Your task to perform on an android device: Go to CNN.com Image 0: 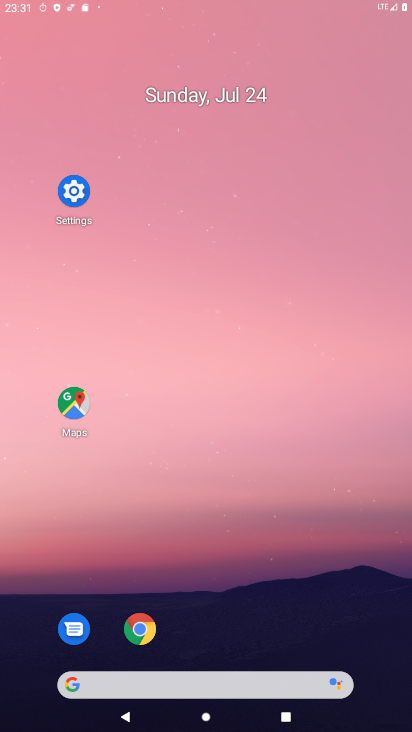
Step 0: drag from (222, 8) to (161, 72)
Your task to perform on an android device: Go to CNN.com Image 1: 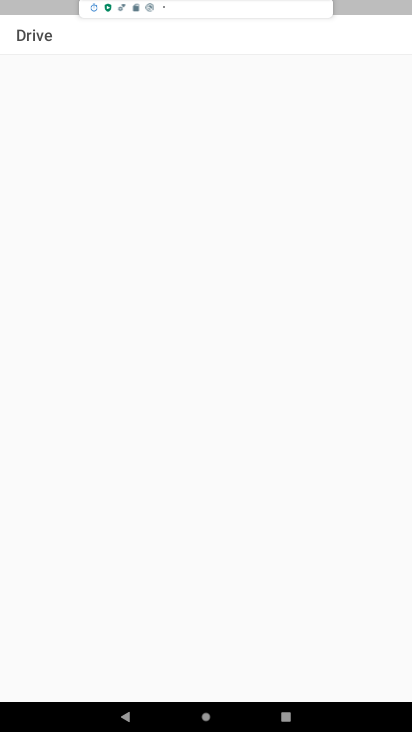
Step 1: drag from (143, 595) to (174, 256)
Your task to perform on an android device: Go to CNN.com Image 2: 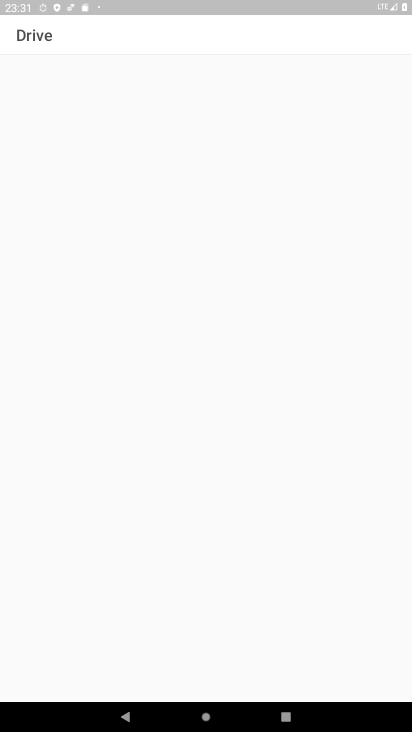
Step 2: press back button
Your task to perform on an android device: Go to CNN.com Image 3: 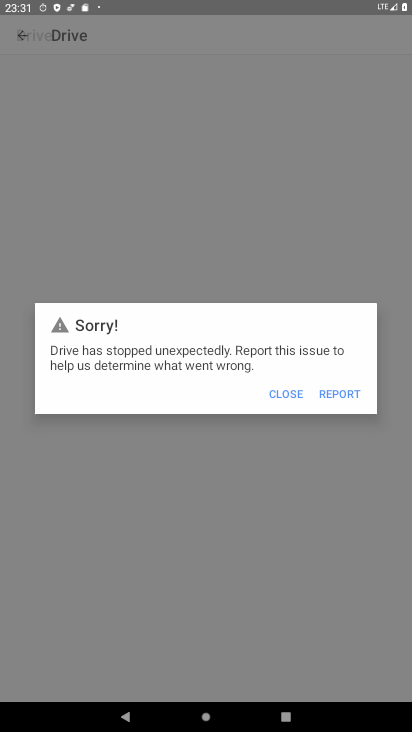
Step 3: press back button
Your task to perform on an android device: Go to CNN.com Image 4: 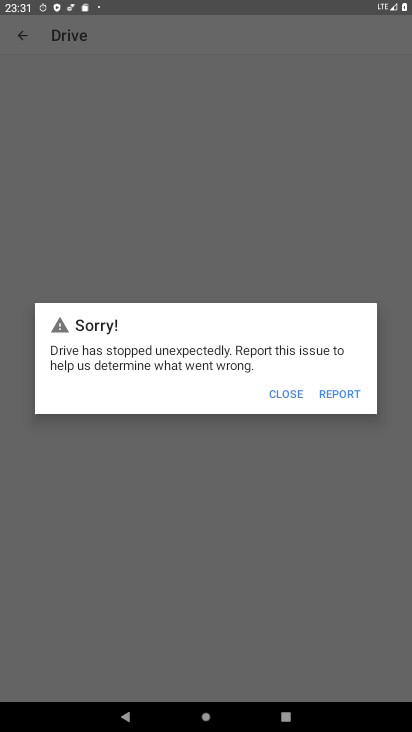
Step 4: press home button
Your task to perform on an android device: Go to CNN.com Image 5: 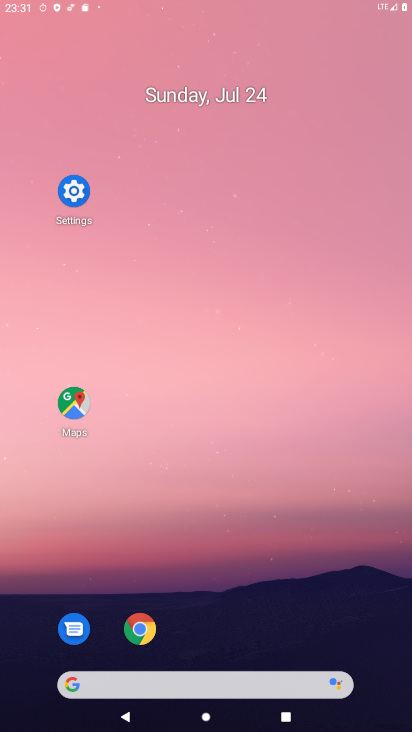
Step 5: click (281, 391)
Your task to perform on an android device: Go to CNN.com Image 6: 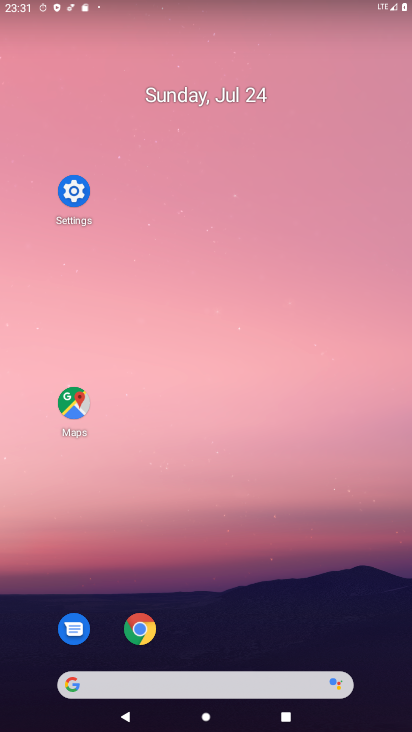
Step 6: drag from (251, 653) to (232, 471)
Your task to perform on an android device: Go to CNN.com Image 7: 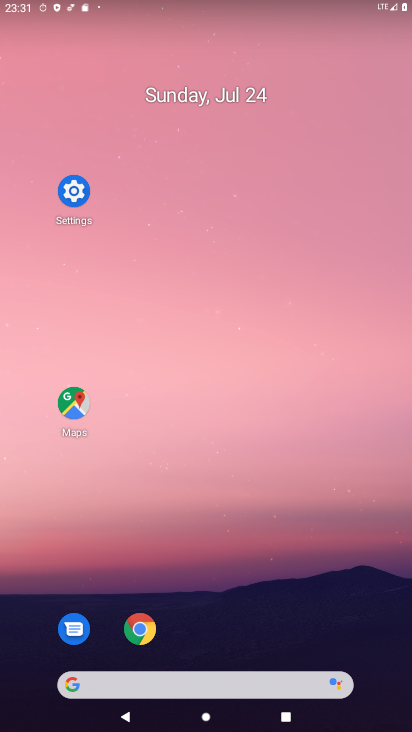
Step 7: click (304, 231)
Your task to perform on an android device: Go to CNN.com Image 8: 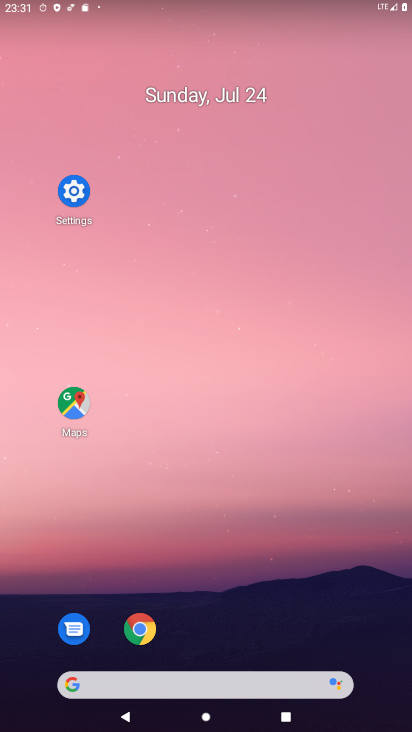
Step 8: click (235, 96)
Your task to perform on an android device: Go to CNN.com Image 9: 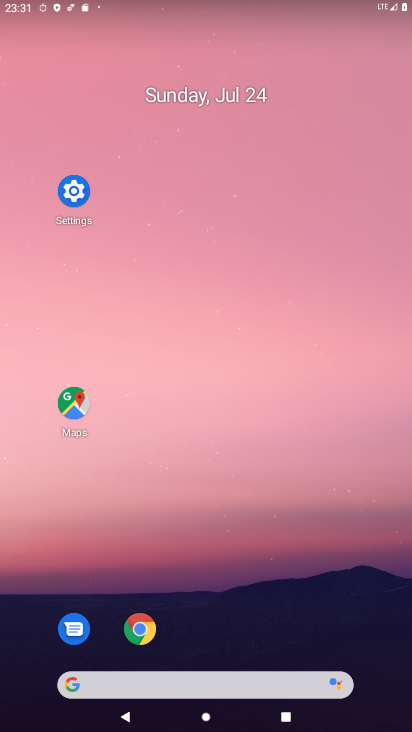
Step 9: click (283, 203)
Your task to perform on an android device: Go to CNN.com Image 10: 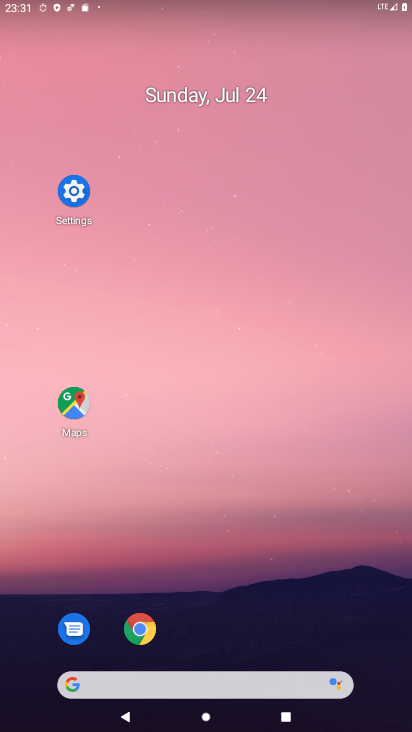
Step 10: drag from (288, 492) to (282, 341)
Your task to perform on an android device: Go to CNN.com Image 11: 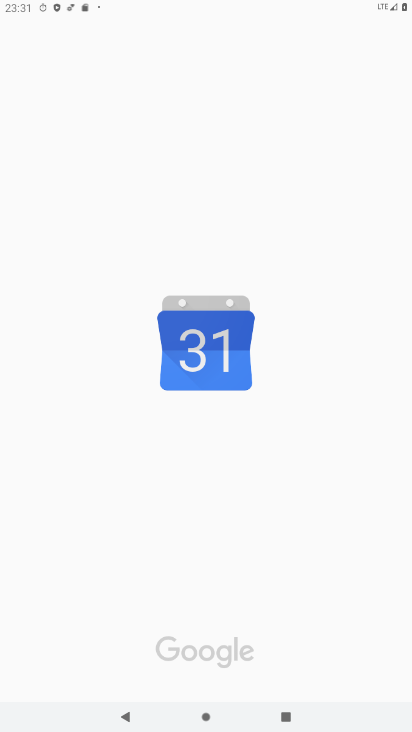
Step 11: drag from (206, 521) to (206, 116)
Your task to perform on an android device: Go to CNN.com Image 12: 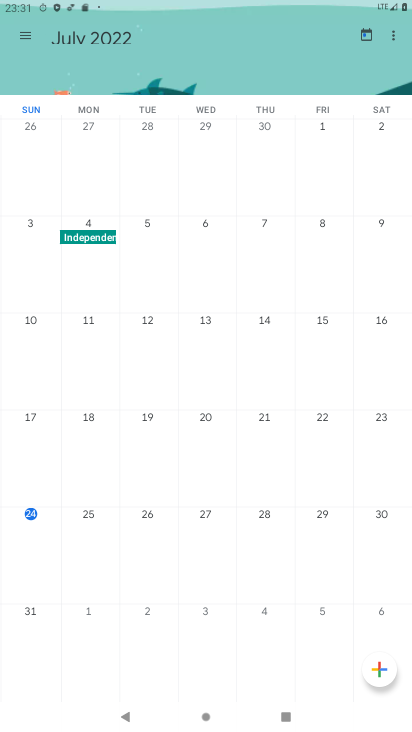
Step 12: press back button
Your task to perform on an android device: Go to CNN.com Image 13: 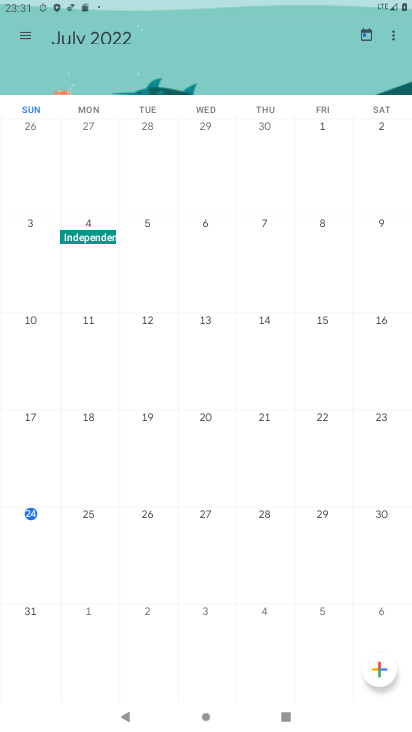
Step 13: press back button
Your task to perform on an android device: Go to CNN.com Image 14: 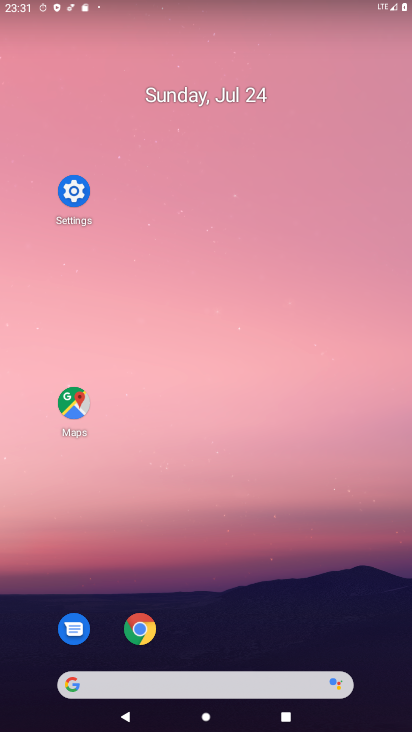
Step 14: press home button
Your task to perform on an android device: Go to CNN.com Image 15: 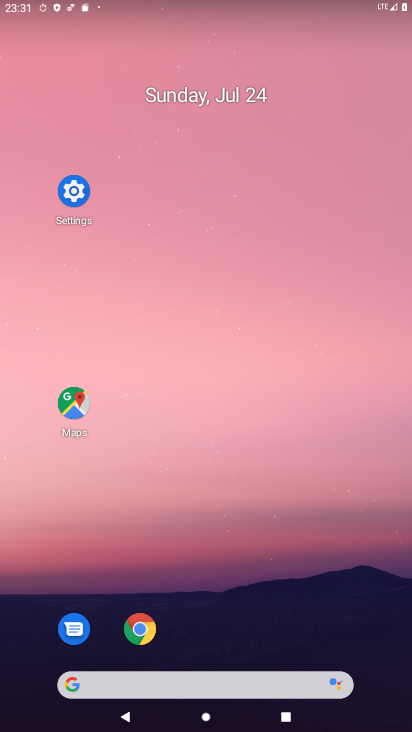
Step 15: drag from (245, 645) to (201, 10)
Your task to perform on an android device: Go to CNN.com Image 16: 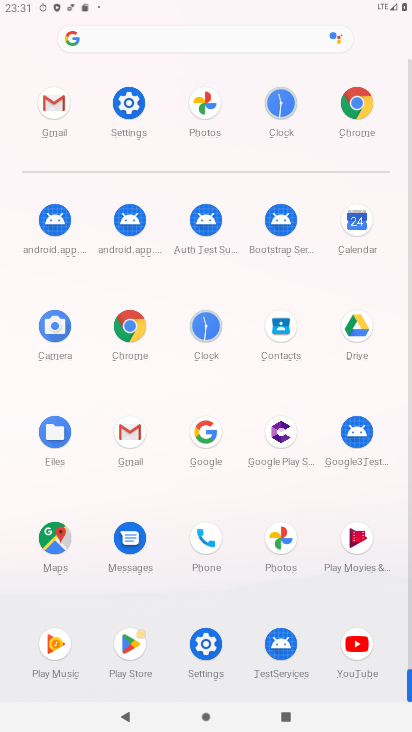
Step 16: click (368, 97)
Your task to perform on an android device: Go to CNN.com Image 17: 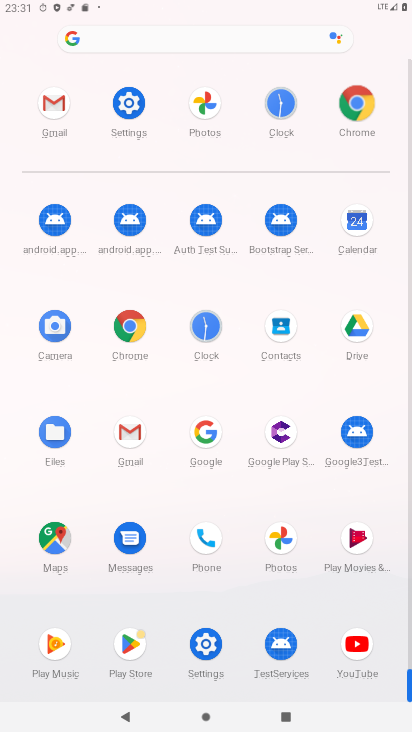
Step 17: click (369, 124)
Your task to perform on an android device: Go to CNN.com Image 18: 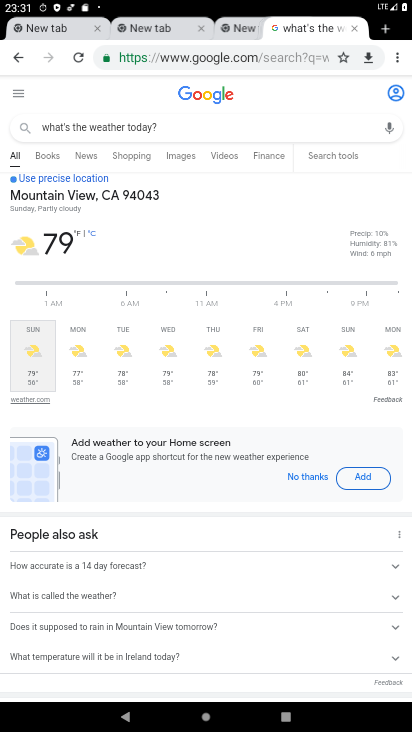
Step 18: drag from (386, 29) to (129, 73)
Your task to perform on an android device: Go to CNN.com Image 19: 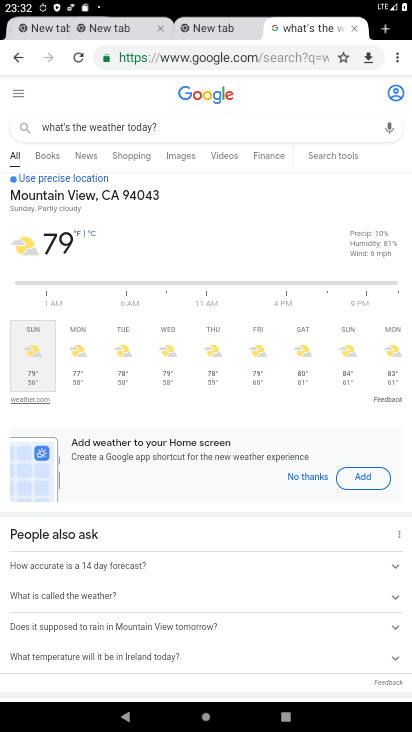
Step 19: click (252, 26)
Your task to perform on an android device: Go to CNN.com Image 20: 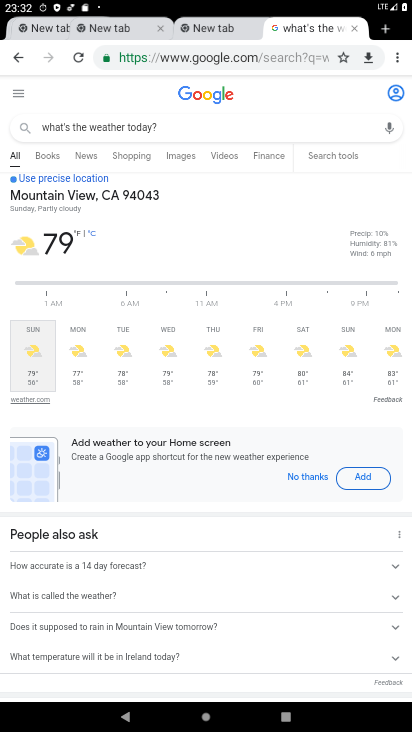
Step 20: click (252, 27)
Your task to perform on an android device: Go to CNN.com Image 21: 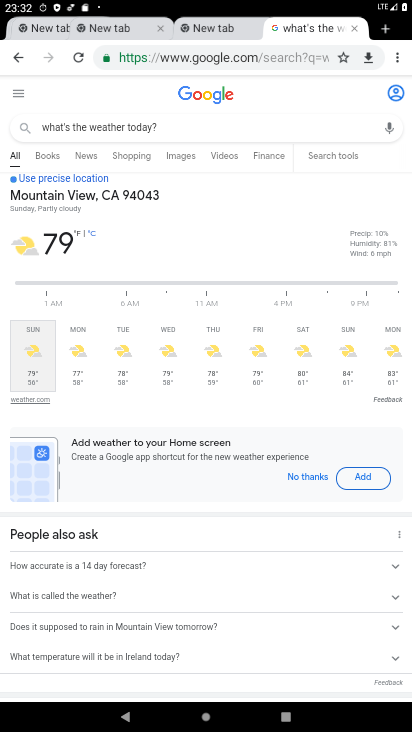
Step 21: click (252, 28)
Your task to perform on an android device: Go to CNN.com Image 22: 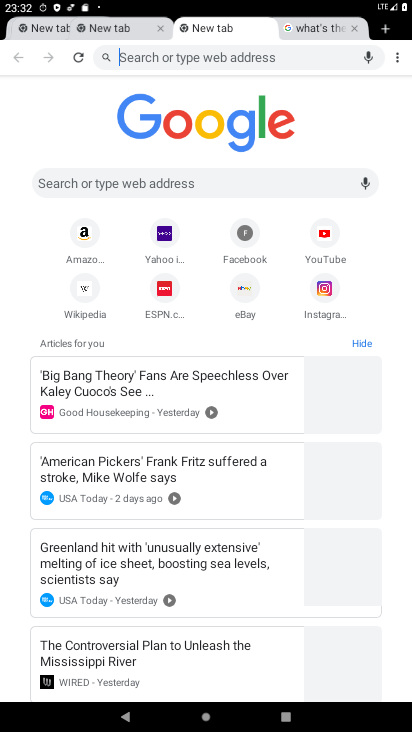
Step 22: click (346, 22)
Your task to perform on an android device: Go to CNN.com Image 23: 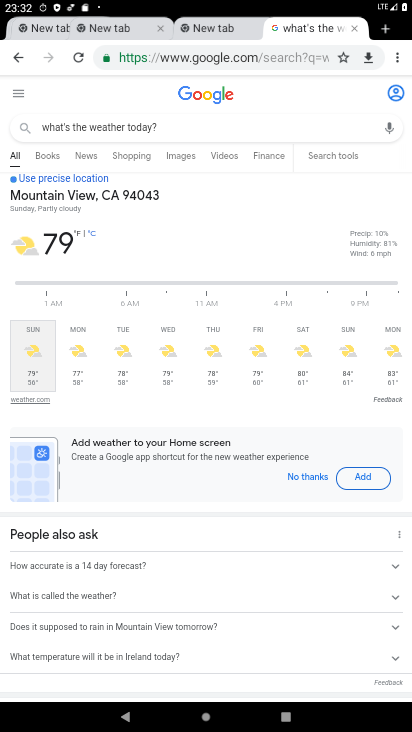
Step 23: click (346, 28)
Your task to perform on an android device: Go to CNN.com Image 24: 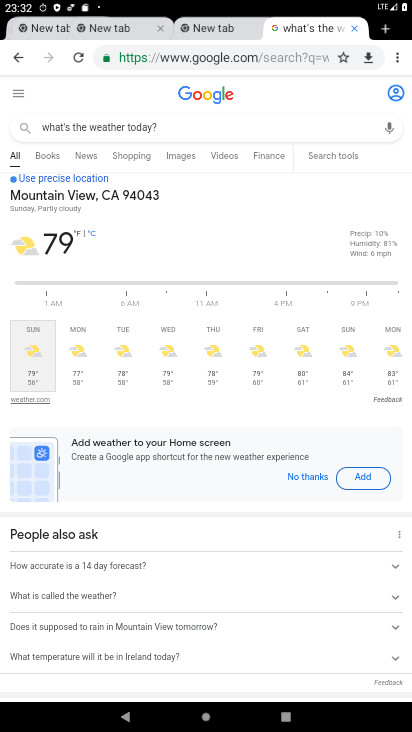
Step 24: click (349, 27)
Your task to perform on an android device: Go to CNN.com Image 25: 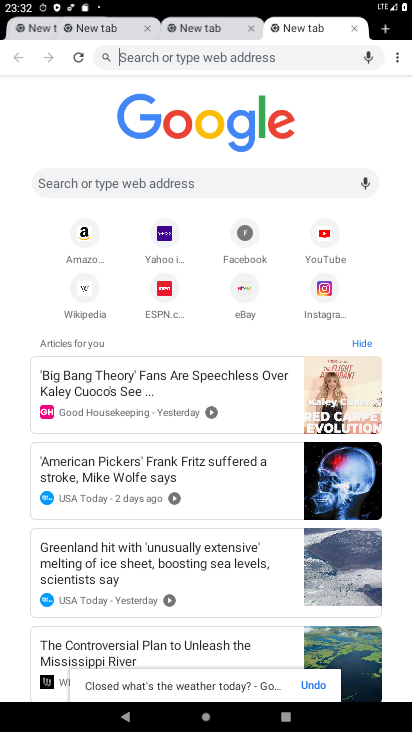
Step 25: click (86, 171)
Your task to perform on an android device: Go to CNN.com Image 26: 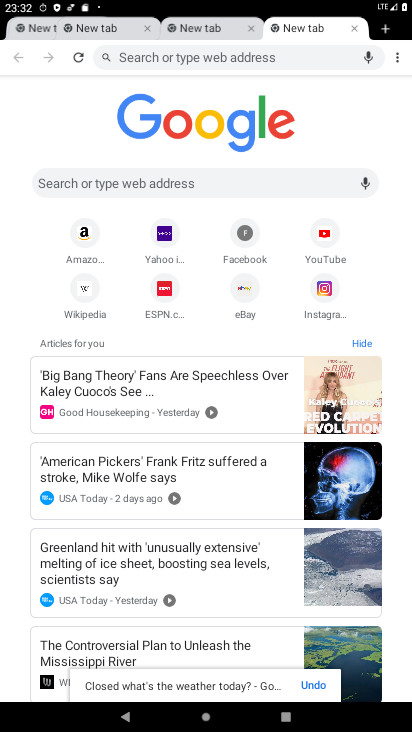
Step 26: click (84, 174)
Your task to perform on an android device: Go to CNN.com Image 27: 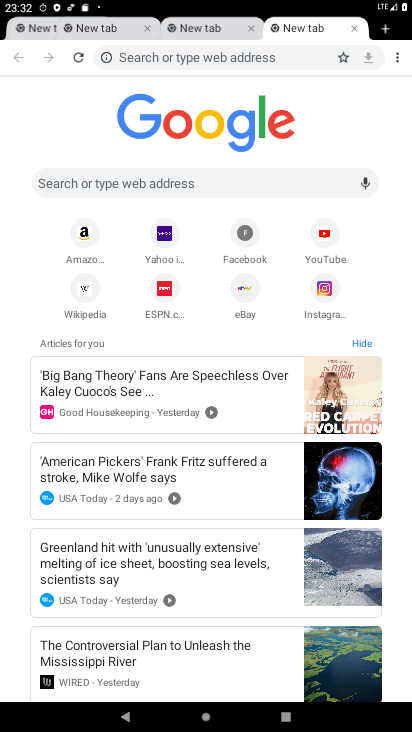
Step 27: click (136, 47)
Your task to perform on an android device: Go to CNN.com Image 28: 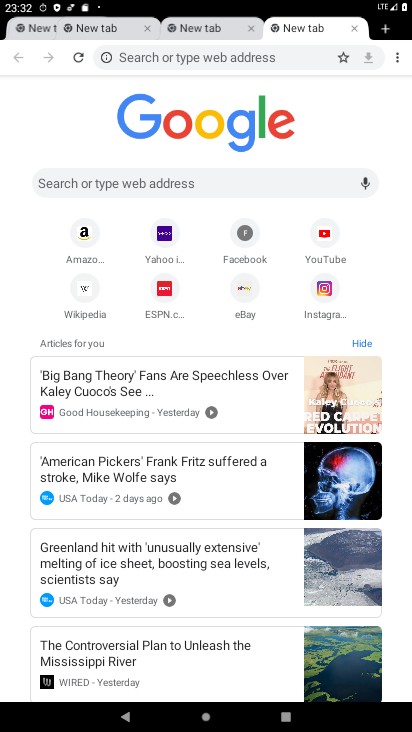
Step 28: click (142, 52)
Your task to perform on an android device: Go to CNN.com Image 29: 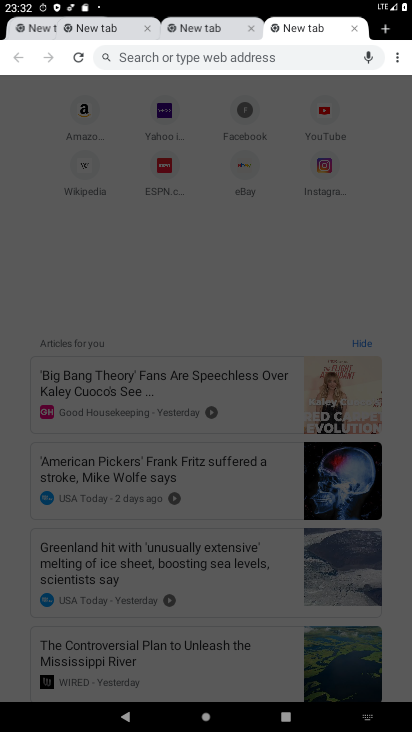
Step 29: type "CNN.com"
Your task to perform on an android device: Go to CNN.com Image 30: 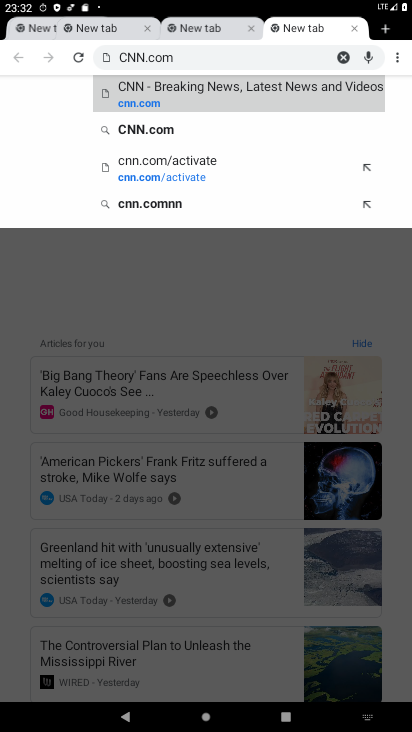
Step 30: click (126, 132)
Your task to perform on an android device: Go to CNN.com Image 31: 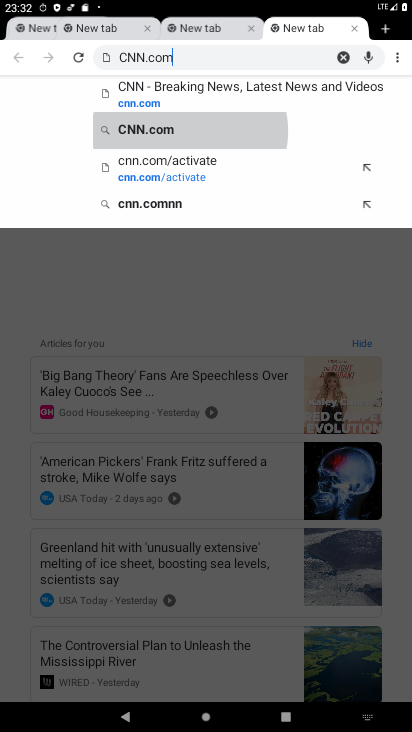
Step 31: click (127, 131)
Your task to perform on an android device: Go to CNN.com Image 32: 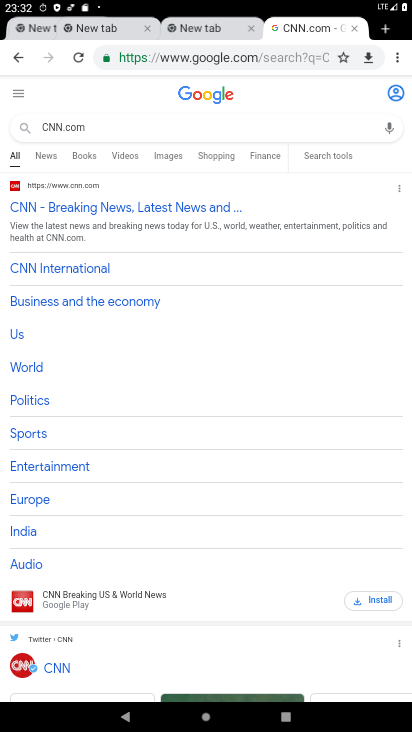
Step 32: task complete